Your task to perform on an android device: toggle pop-ups in chrome Image 0: 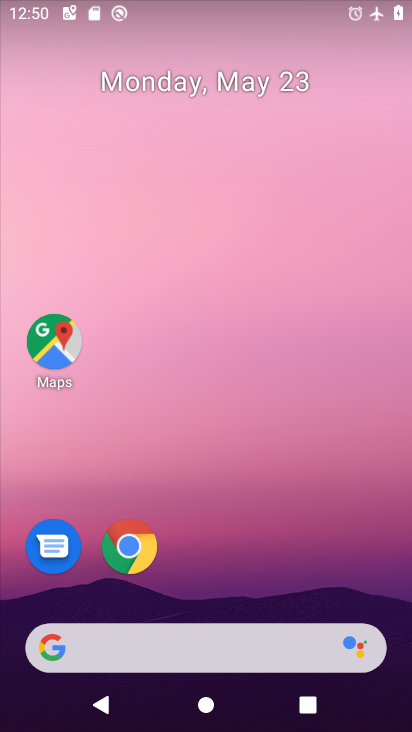
Step 0: drag from (275, 469) to (242, 0)
Your task to perform on an android device: toggle pop-ups in chrome Image 1: 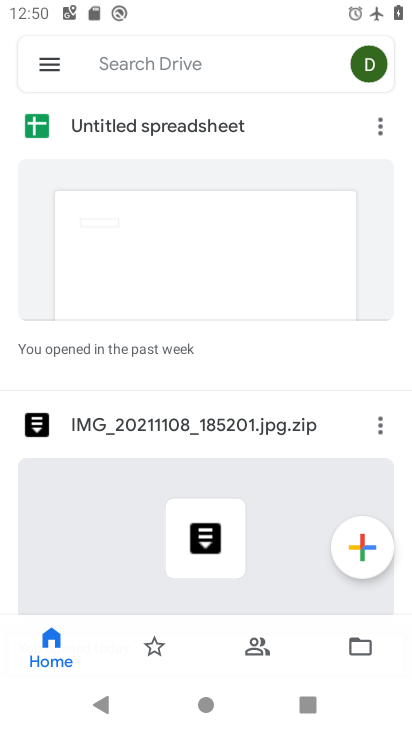
Step 1: press home button
Your task to perform on an android device: toggle pop-ups in chrome Image 2: 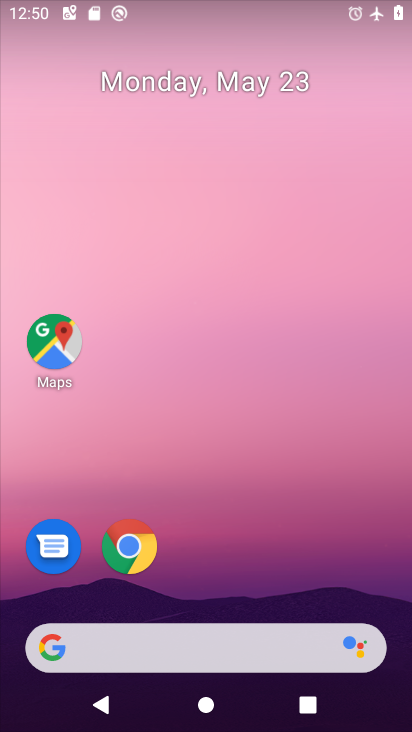
Step 2: drag from (230, 672) to (235, 109)
Your task to perform on an android device: toggle pop-ups in chrome Image 3: 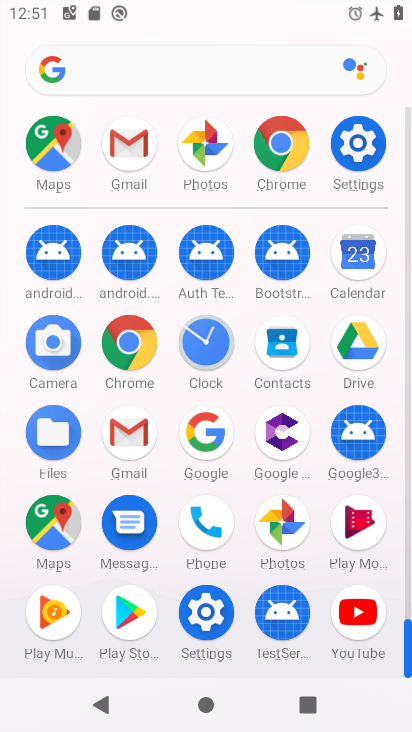
Step 3: click (286, 156)
Your task to perform on an android device: toggle pop-ups in chrome Image 4: 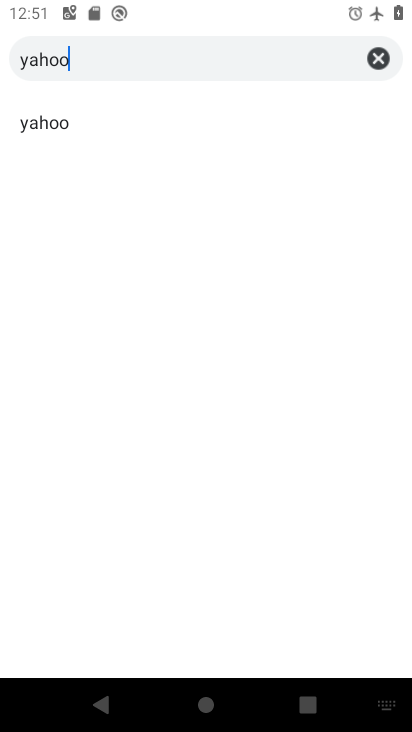
Step 4: click (378, 49)
Your task to perform on an android device: toggle pop-ups in chrome Image 5: 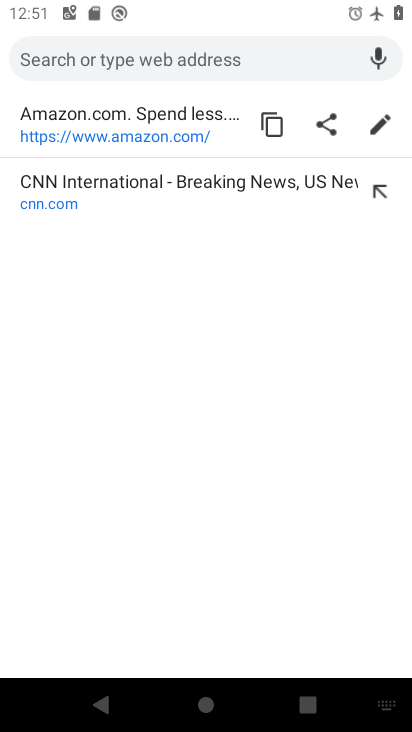
Step 5: press back button
Your task to perform on an android device: toggle pop-ups in chrome Image 6: 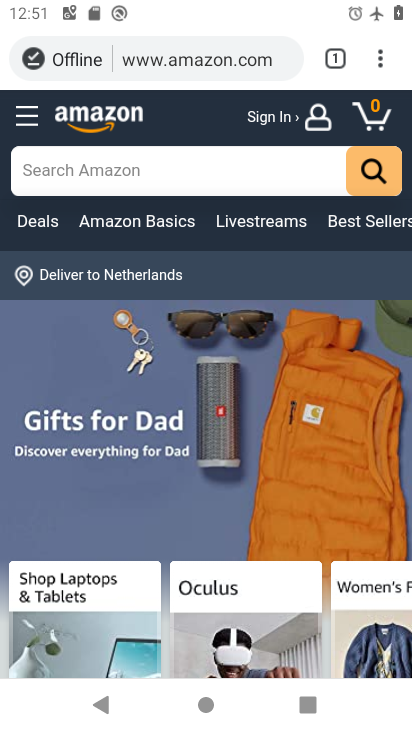
Step 6: click (390, 68)
Your task to perform on an android device: toggle pop-ups in chrome Image 7: 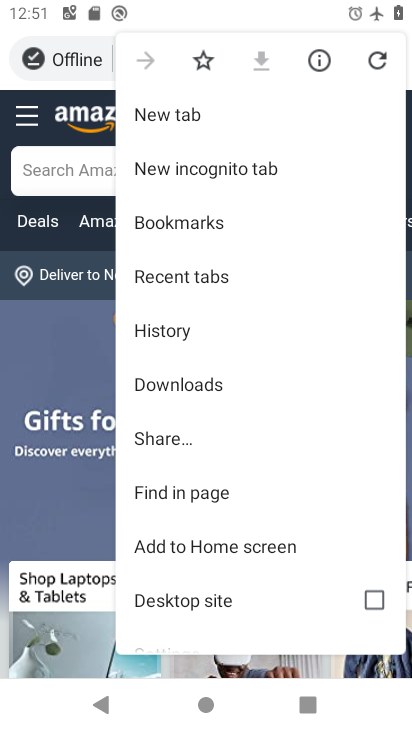
Step 7: drag from (240, 571) to (232, 196)
Your task to perform on an android device: toggle pop-ups in chrome Image 8: 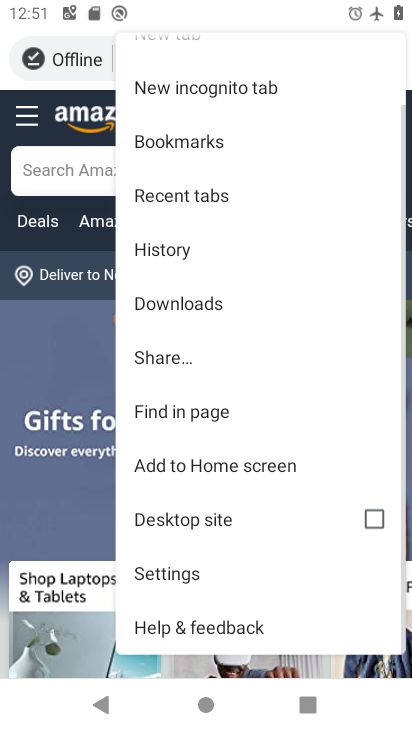
Step 8: click (217, 578)
Your task to perform on an android device: toggle pop-ups in chrome Image 9: 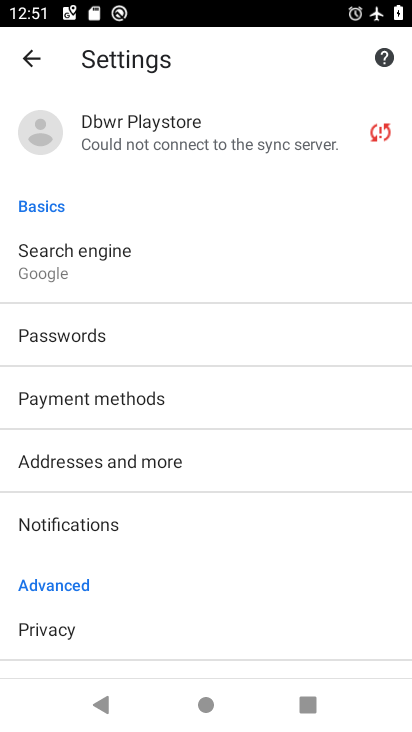
Step 9: drag from (204, 590) to (210, 180)
Your task to perform on an android device: toggle pop-ups in chrome Image 10: 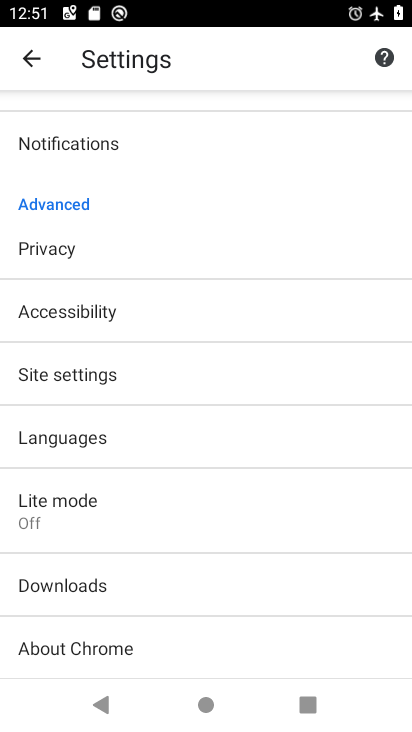
Step 10: click (103, 399)
Your task to perform on an android device: toggle pop-ups in chrome Image 11: 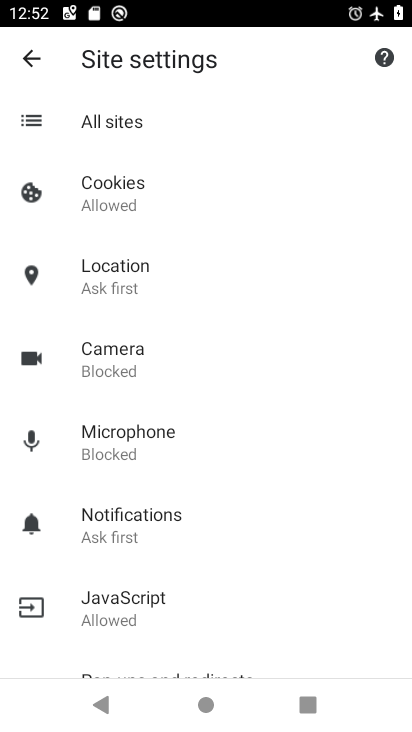
Step 11: drag from (147, 548) to (150, 153)
Your task to perform on an android device: toggle pop-ups in chrome Image 12: 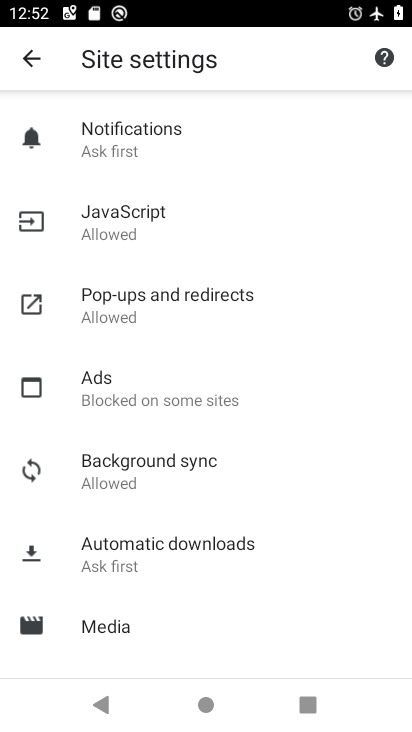
Step 12: click (174, 312)
Your task to perform on an android device: toggle pop-ups in chrome Image 13: 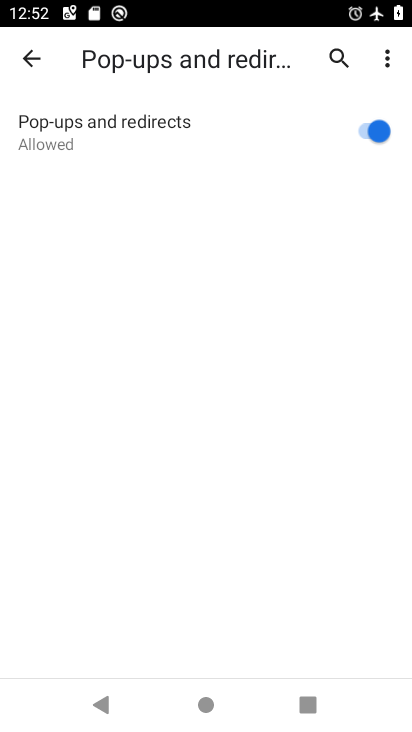
Step 13: click (364, 148)
Your task to perform on an android device: toggle pop-ups in chrome Image 14: 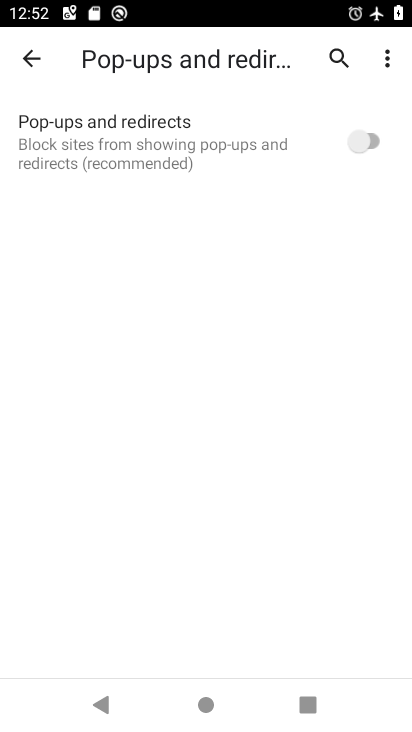
Step 14: task complete